Your task to perform on an android device: star an email in the gmail app Image 0: 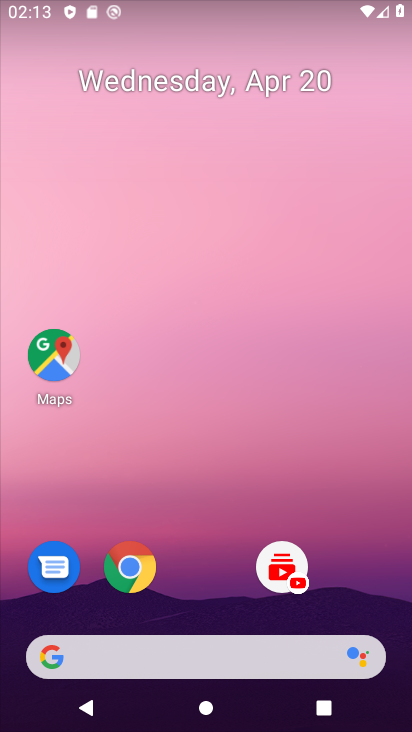
Step 0: click (395, 509)
Your task to perform on an android device: star an email in the gmail app Image 1: 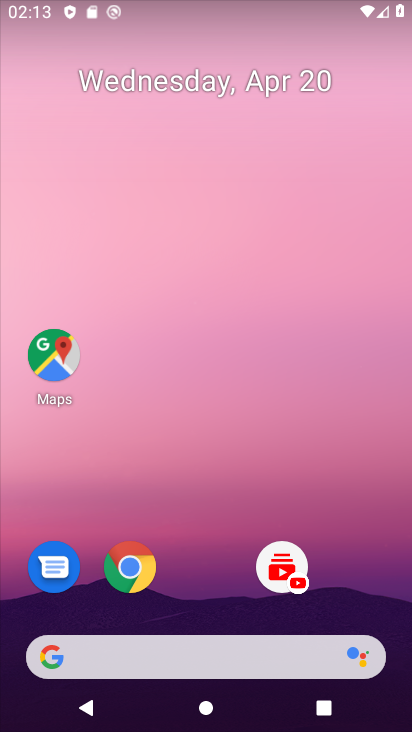
Step 1: drag from (228, 585) to (207, 65)
Your task to perform on an android device: star an email in the gmail app Image 2: 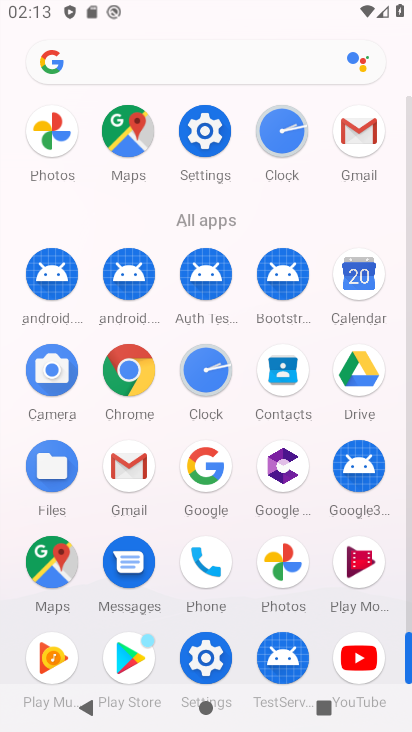
Step 2: click (147, 458)
Your task to perform on an android device: star an email in the gmail app Image 3: 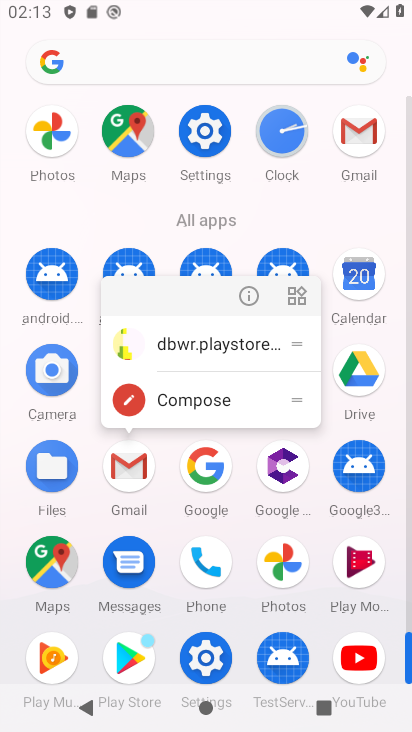
Step 3: click (257, 301)
Your task to perform on an android device: star an email in the gmail app Image 4: 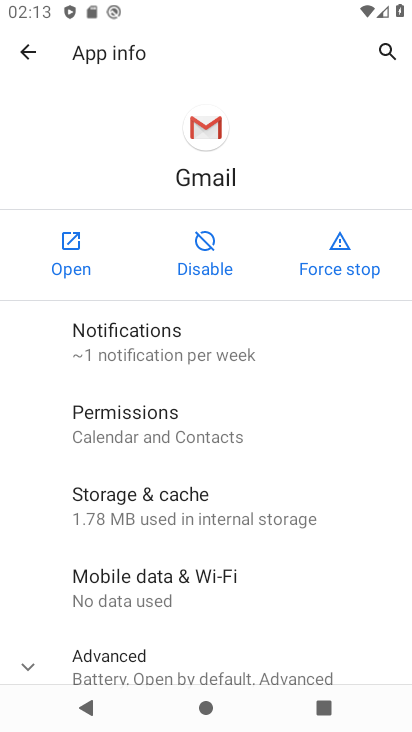
Step 4: click (69, 241)
Your task to perform on an android device: star an email in the gmail app Image 5: 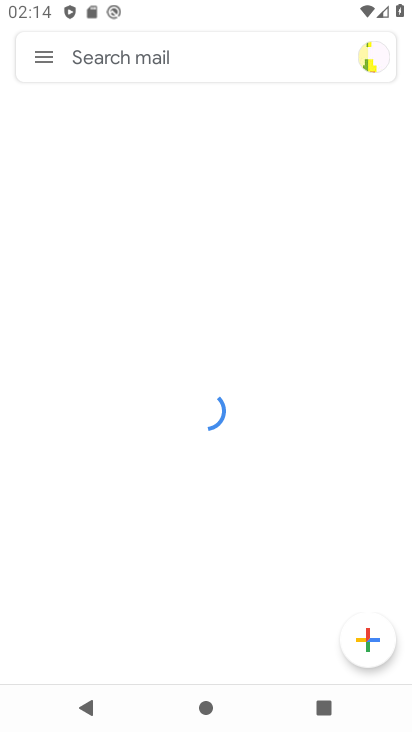
Step 5: task complete